Your task to perform on an android device: turn notification dots off Image 0: 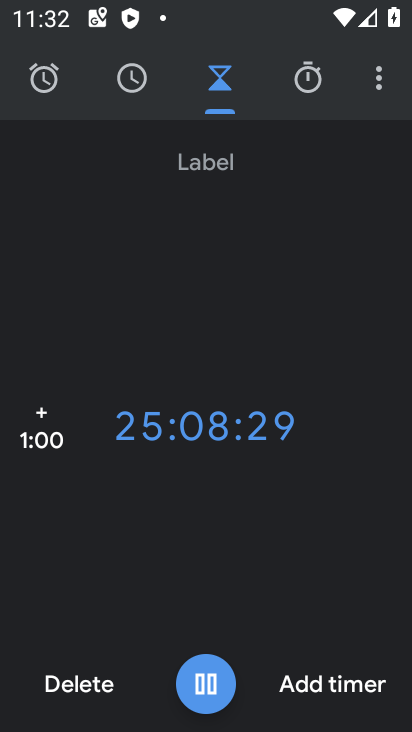
Step 0: press home button
Your task to perform on an android device: turn notification dots off Image 1: 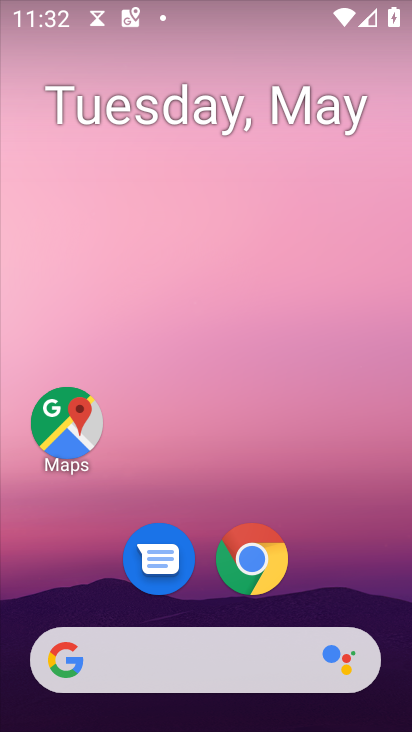
Step 1: drag from (399, 456) to (287, 44)
Your task to perform on an android device: turn notification dots off Image 2: 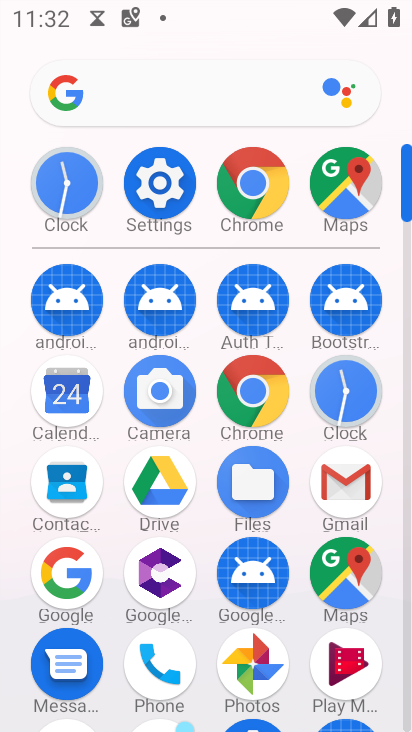
Step 2: click (149, 178)
Your task to perform on an android device: turn notification dots off Image 3: 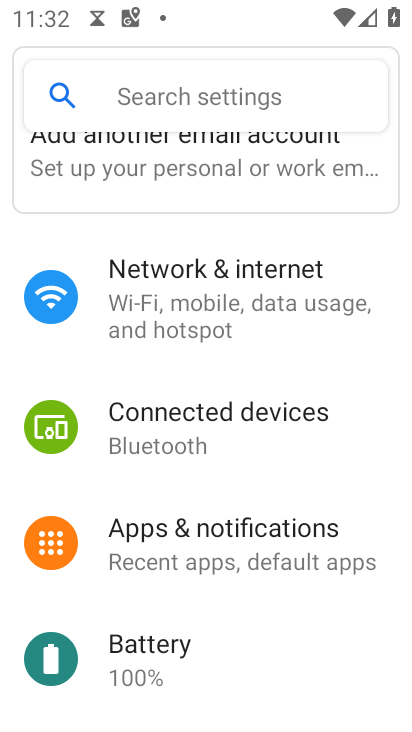
Step 3: click (256, 551)
Your task to perform on an android device: turn notification dots off Image 4: 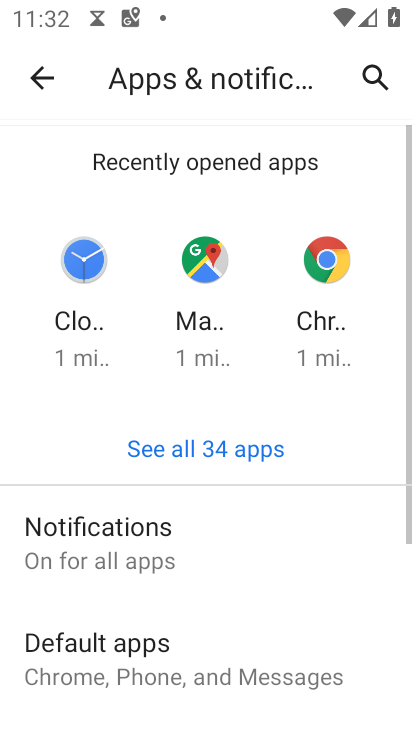
Step 4: click (103, 536)
Your task to perform on an android device: turn notification dots off Image 5: 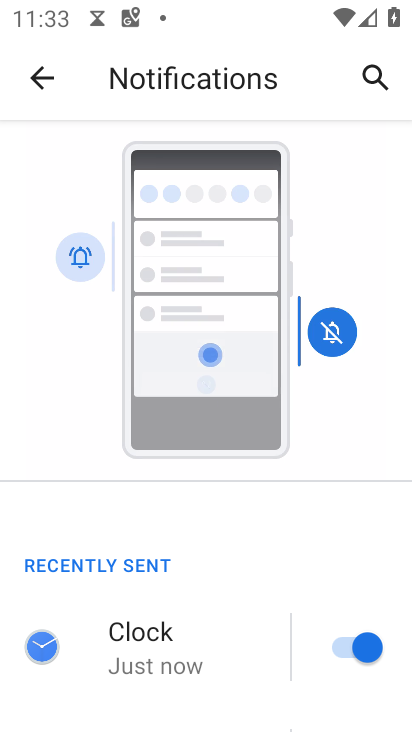
Step 5: drag from (234, 635) to (271, 219)
Your task to perform on an android device: turn notification dots off Image 6: 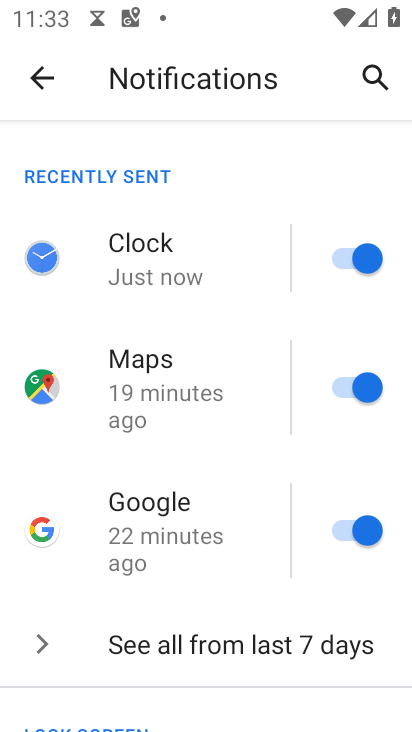
Step 6: drag from (222, 629) to (203, 163)
Your task to perform on an android device: turn notification dots off Image 7: 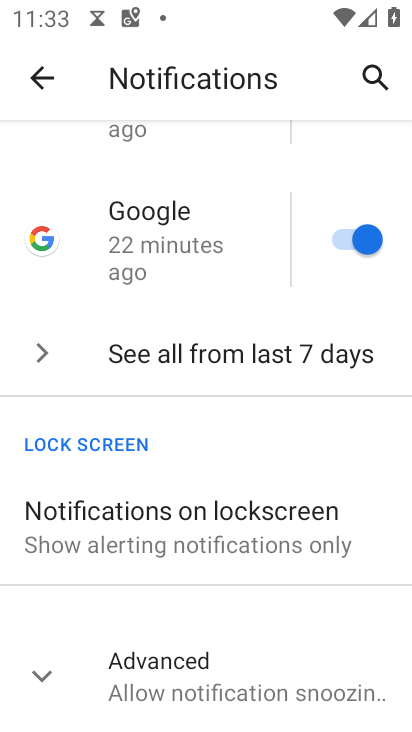
Step 7: drag from (236, 453) to (226, 308)
Your task to perform on an android device: turn notification dots off Image 8: 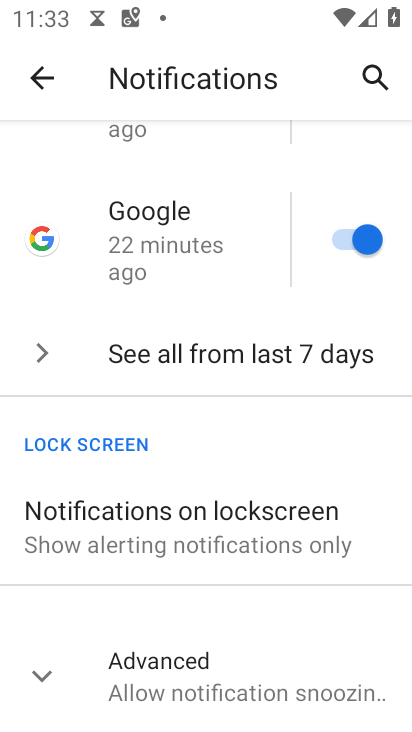
Step 8: drag from (206, 600) to (206, 282)
Your task to perform on an android device: turn notification dots off Image 9: 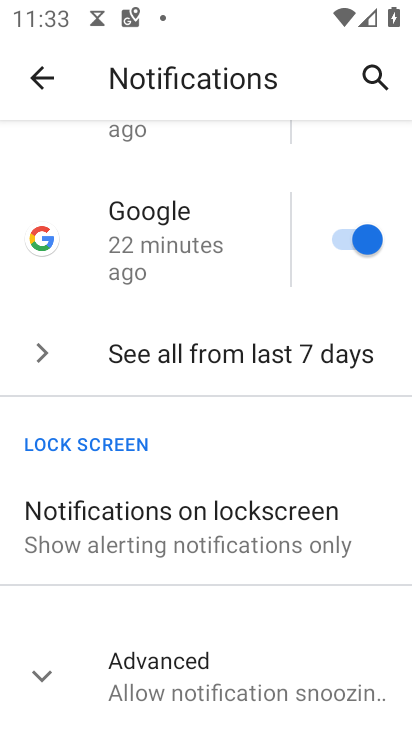
Step 9: click (243, 685)
Your task to perform on an android device: turn notification dots off Image 10: 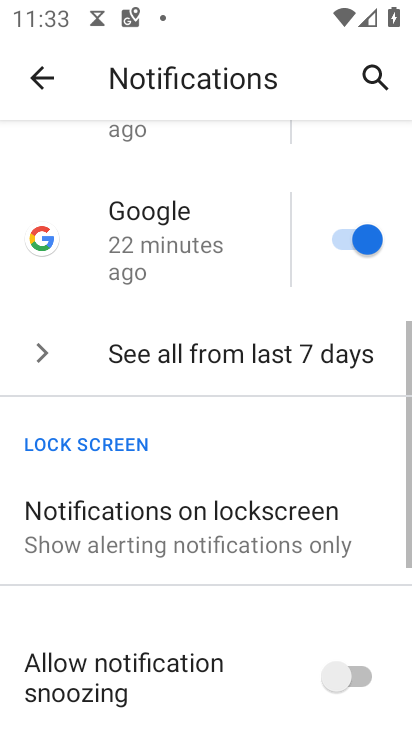
Step 10: drag from (218, 696) to (262, 228)
Your task to perform on an android device: turn notification dots off Image 11: 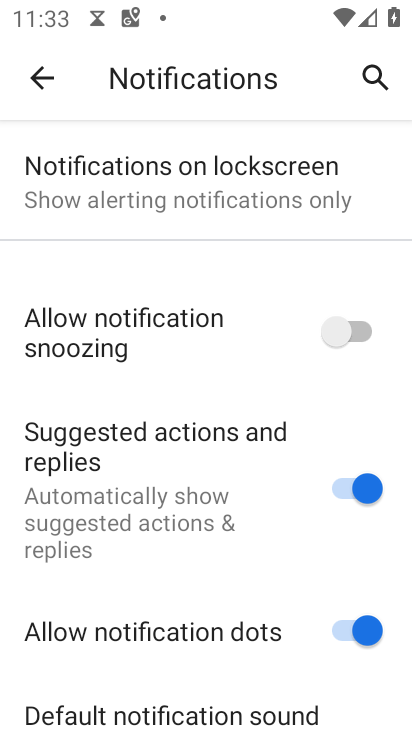
Step 11: drag from (202, 649) to (235, 311)
Your task to perform on an android device: turn notification dots off Image 12: 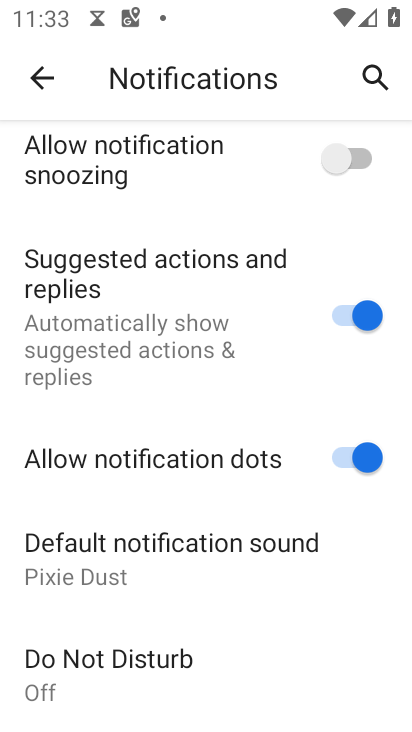
Step 12: click (358, 449)
Your task to perform on an android device: turn notification dots off Image 13: 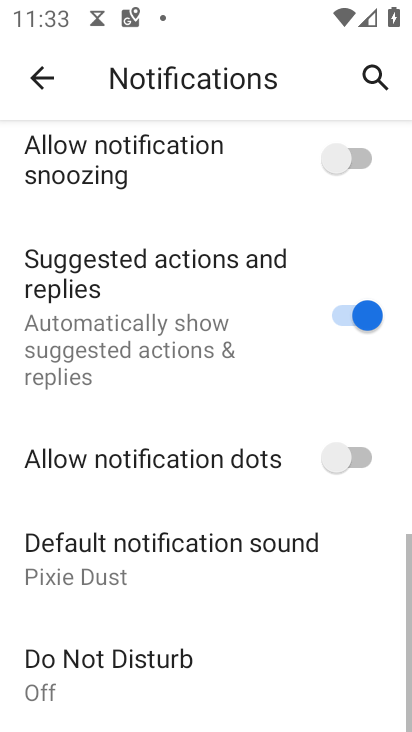
Step 13: task complete